Your task to perform on an android device: Do I have any events this weekend? Image 0: 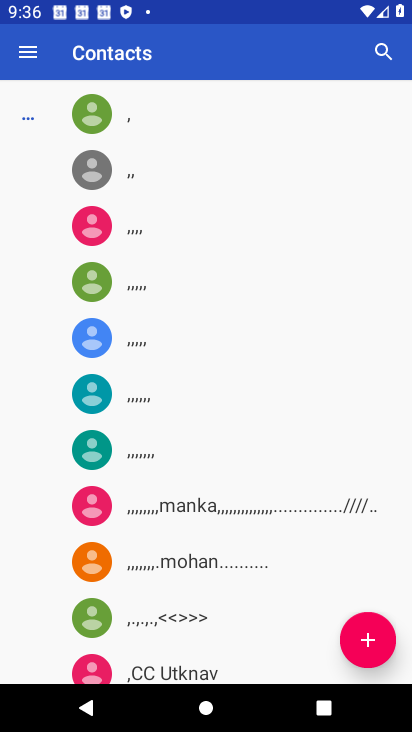
Step 0: press home button
Your task to perform on an android device: Do I have any events this weekend? Image 1: 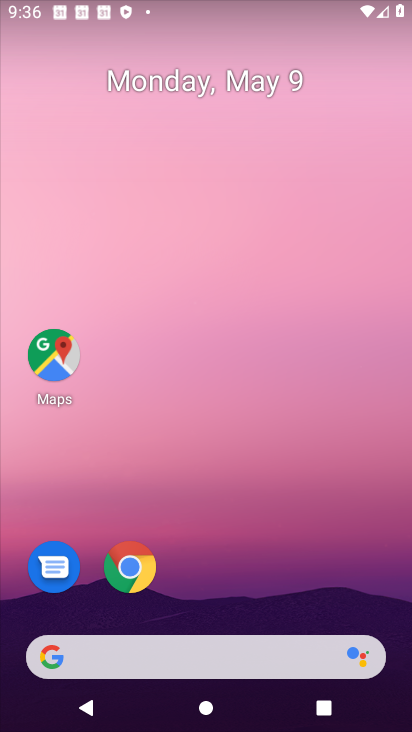
Step 1: drag from (207, 644) to (176, 174)
Your task to perform on an android device: Do I have any events this weekend? Image 2: 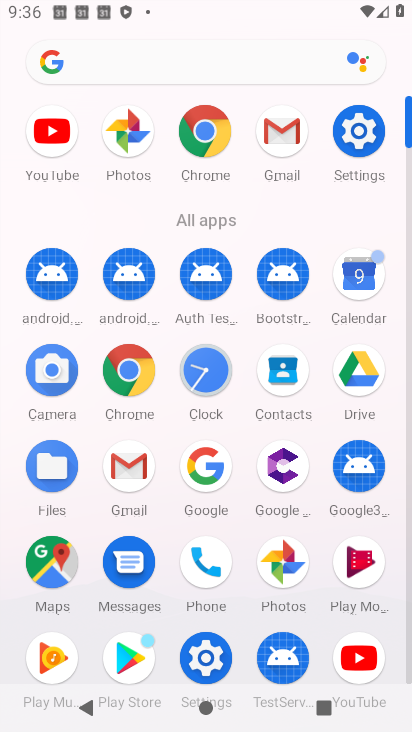
Step 2: click (361, 278)
Your task to perform on an android device: Do I have any events this weekend? Image 3: 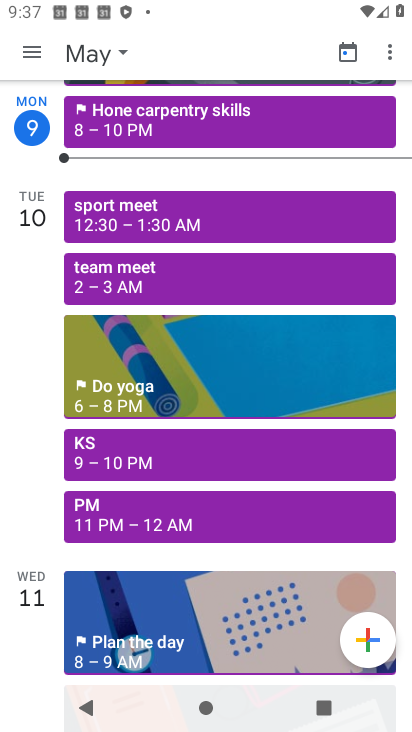
Step 3: click (37, 54)
Your task to perform on an android device: Do I have any events this weekend? Image 4: 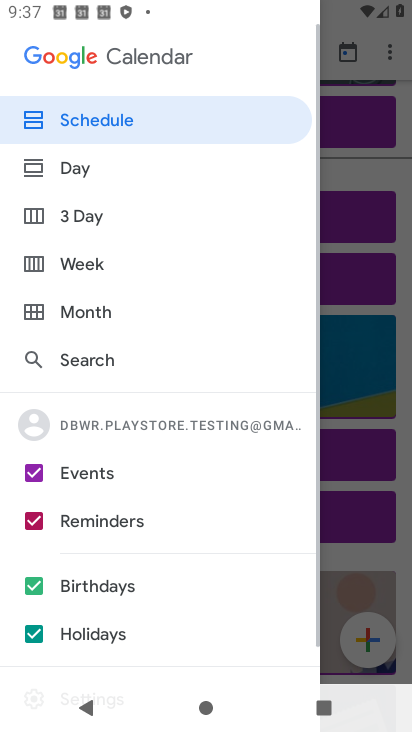
Step 4: click (121, 264)
Your task to perform on an android device: Do I have any events this weekend? Image 5: 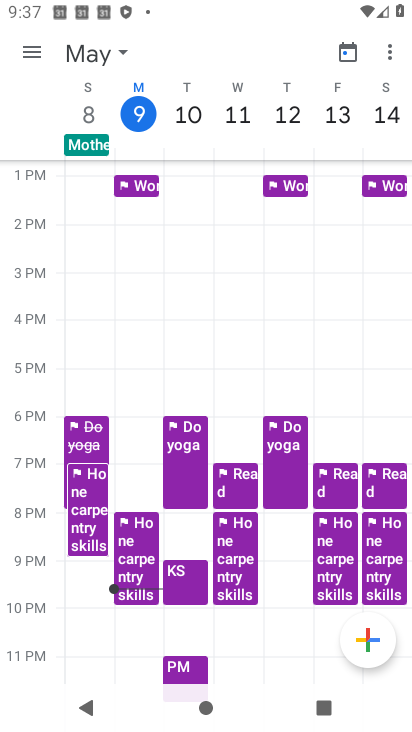
Step 5: task complete